Your task to perform on an android device: Clear the cart on newegg.com. Search for usb-c to usb-a on newegg.com, select the first entry, and add it to the cart. Image 0: 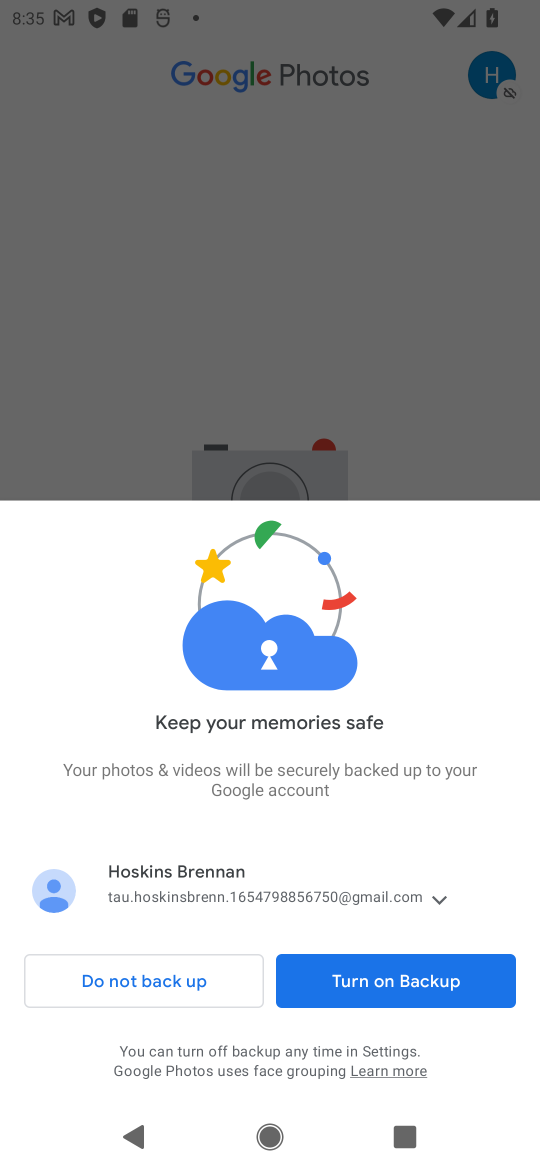
Step 0: press home button
Your task to perform on an android device: Clear the cart on newegg.com. Search for usb-c to usb-a on newegg.com, select the first entry, and add it to the cart. Image 1: 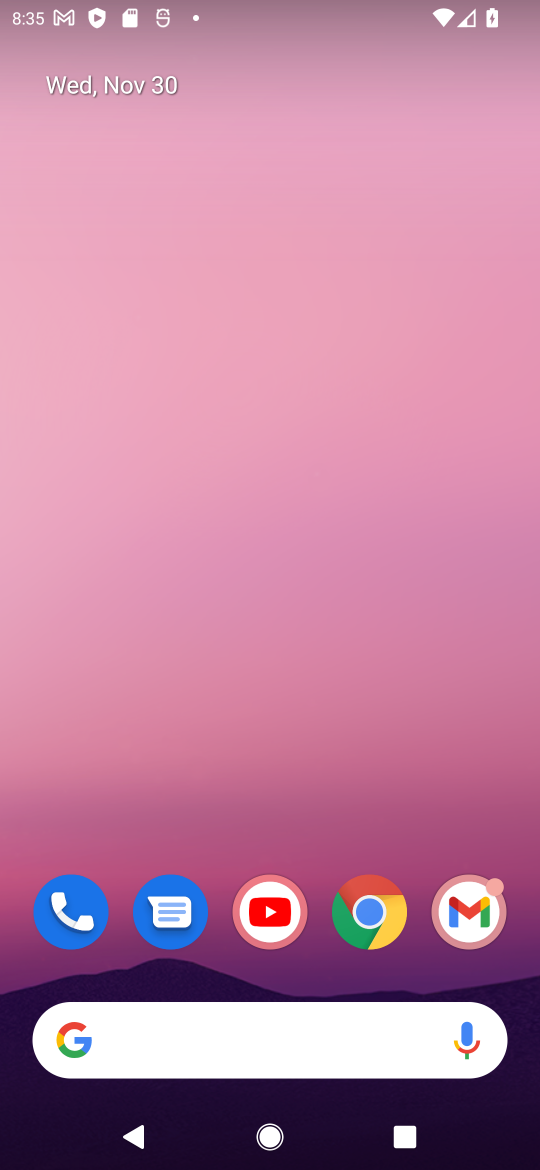
Step 1: click (269, 1038)
Your task to perform on an android device: Clear the cart on newegg.com. Search for usb-c to usb-a on newegg.com, select the first entry, and add it to the cart. Image 2: 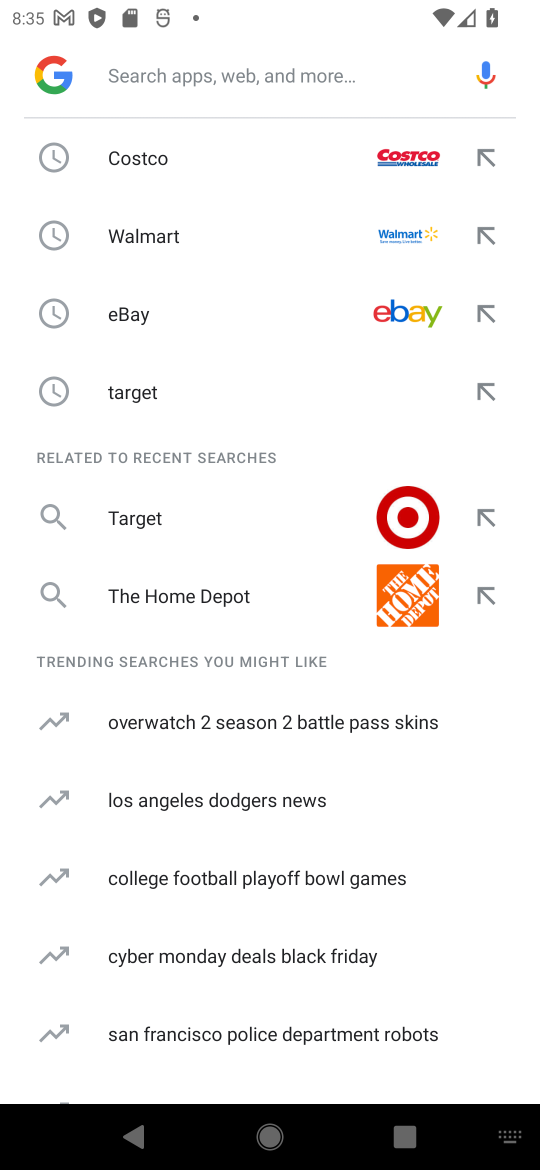
Step 2: type "newegg.com"
Your task to perform on an android device: Clear the cart on newegg.com. Search for usb-c to usb-a on newegg.com, select the first entry, and add it to the cart. Image 3: 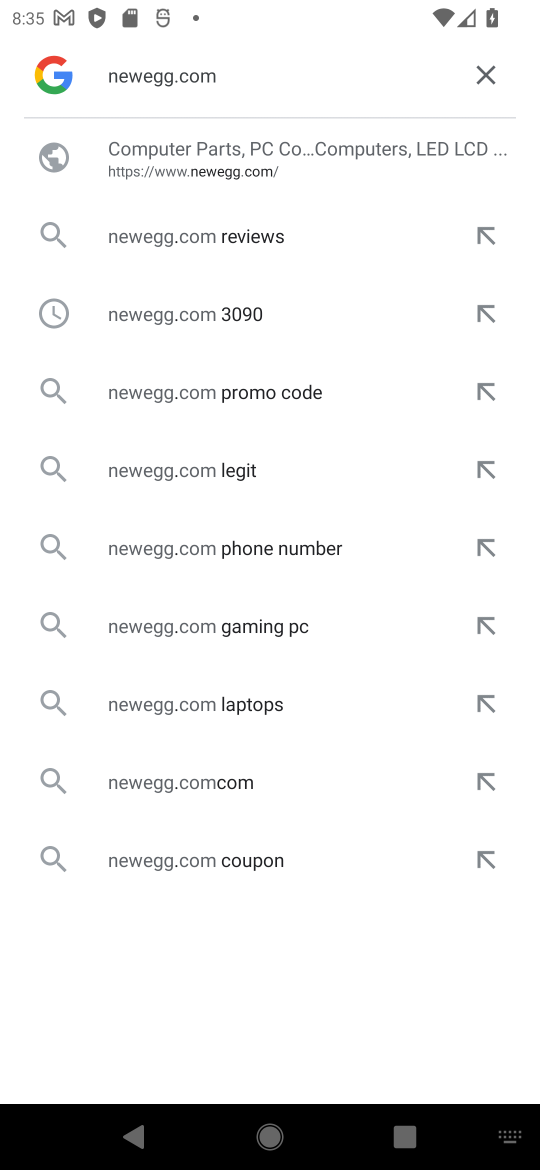
Step 3: click (214, 160)
Your task to perform on an android device: Clear the cart on newegg.com. Search for usb-c to usb-a on newegg.com, select the first entry, and add it to the cart. Image 4: 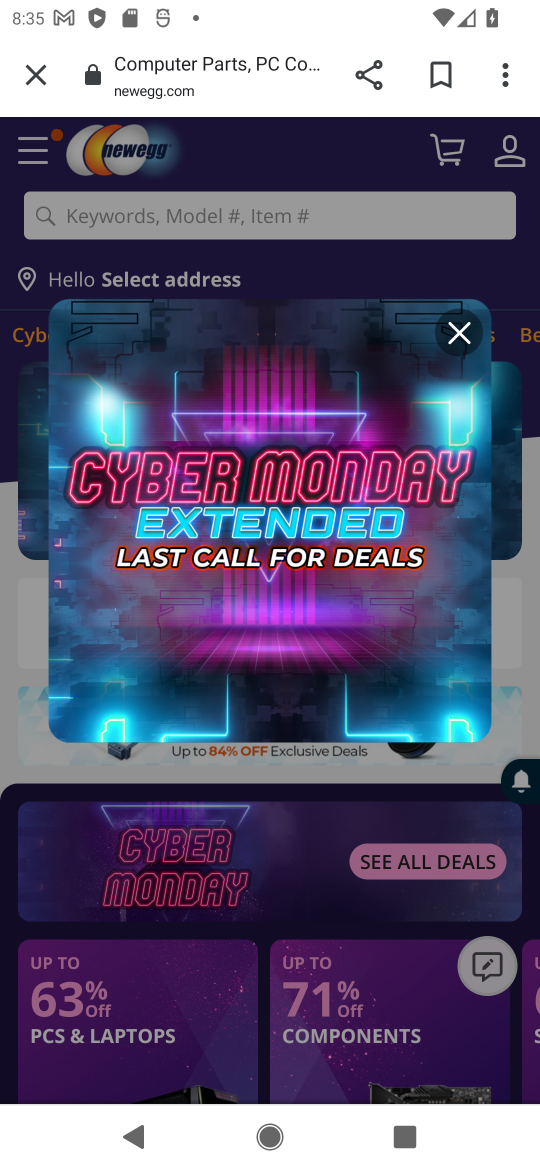
Step 4: click (234, 216)
Your task to perform on an android device: Clear the cart on newegg.com. Search for usb-c to usb-a on newegg.com, select the first entry, and add it to the cart. Image 5: 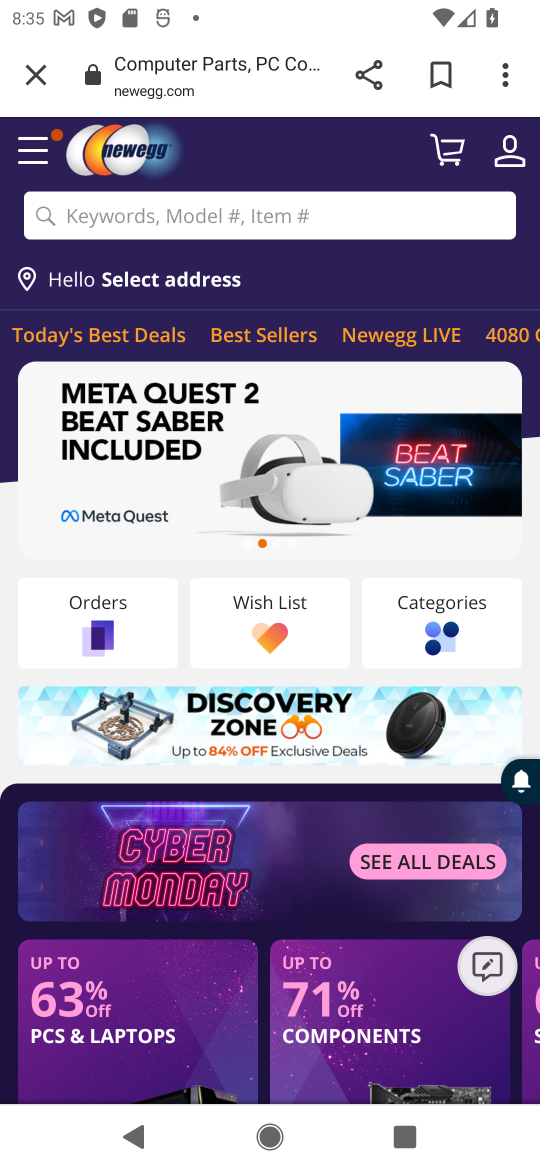
Step 5: click (221, 204)
Your task to perform on an android device: Clear the cart on newegg.com. Search for usb-c to usb-a on newegg.com, select the first entry, and add it to the cart. Image 6: 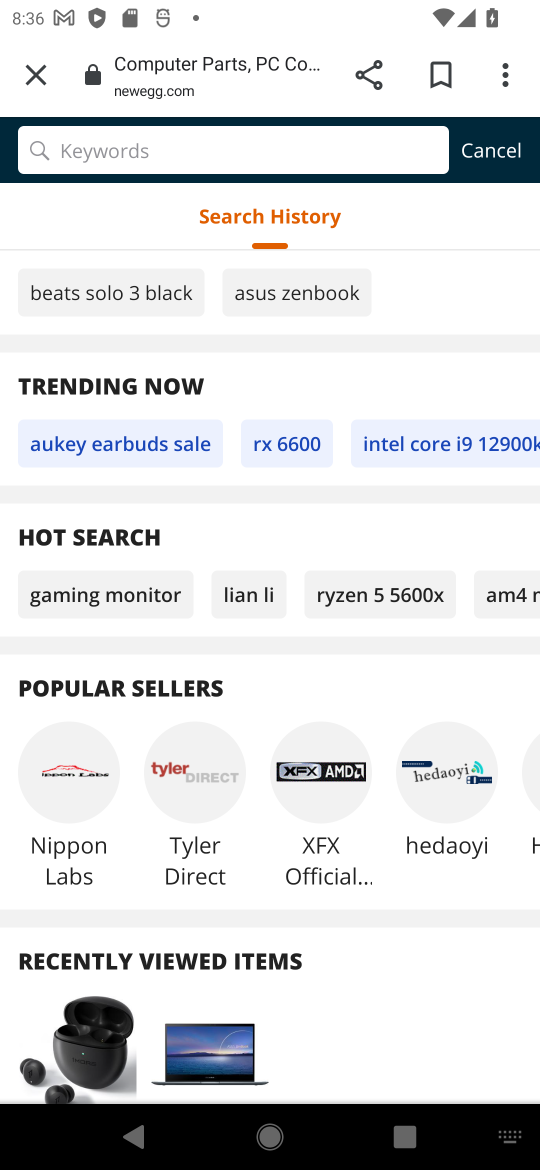
Step 6: type "usb-c to usb-a "
Your task to perform on an android device: Clear the cart on newegg.com. Search for usb-c to usb-a on newegg.com, select the first entry, and add it to the cart. Image 7: 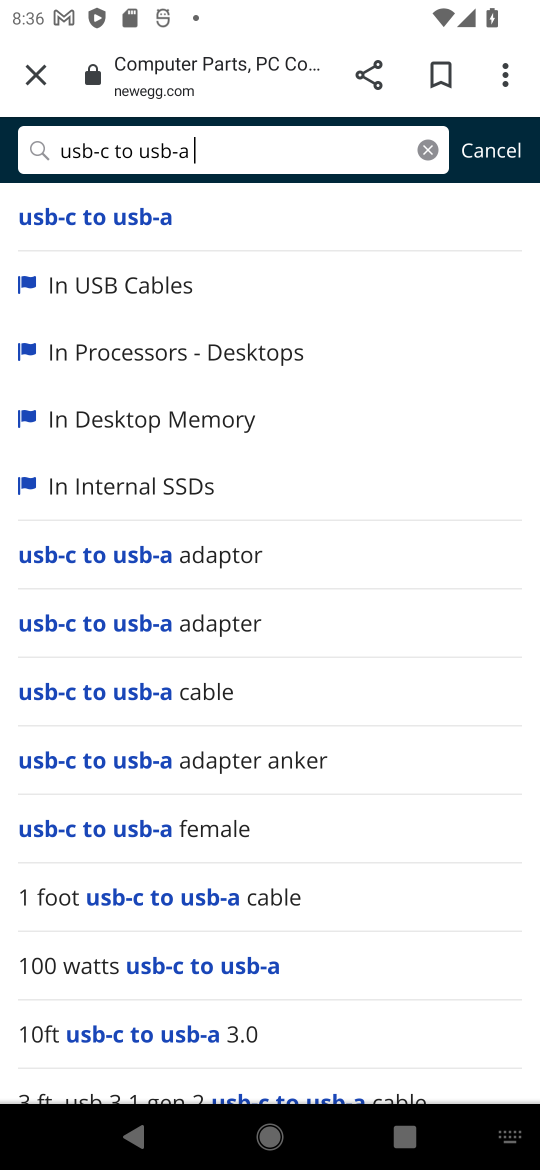
Step 7: click (127, 562)
Your task to perform on an android device: Clear the cart on newegg.com. Search for usb-c to usb-a on newegg.com, select the first entry, and add it to the cart. Image 8: 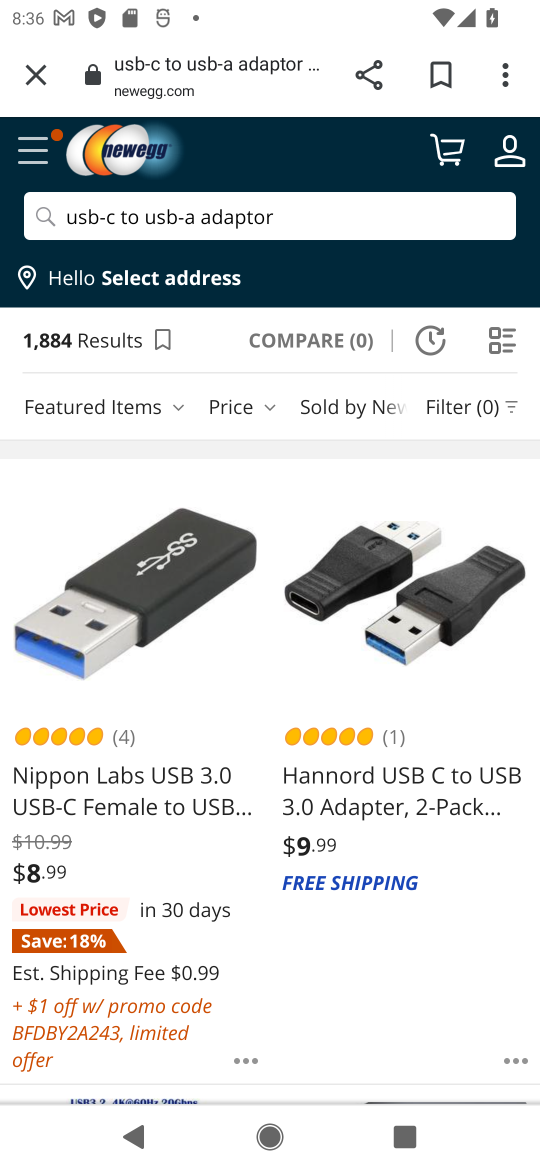
Step 8: click (77, 731)
Your task to perform on an android device: Clear the cart on newegg.com. Search for usb-c to usb-a on newegg.com, select the first entry, and add it to the cart. Image 9: 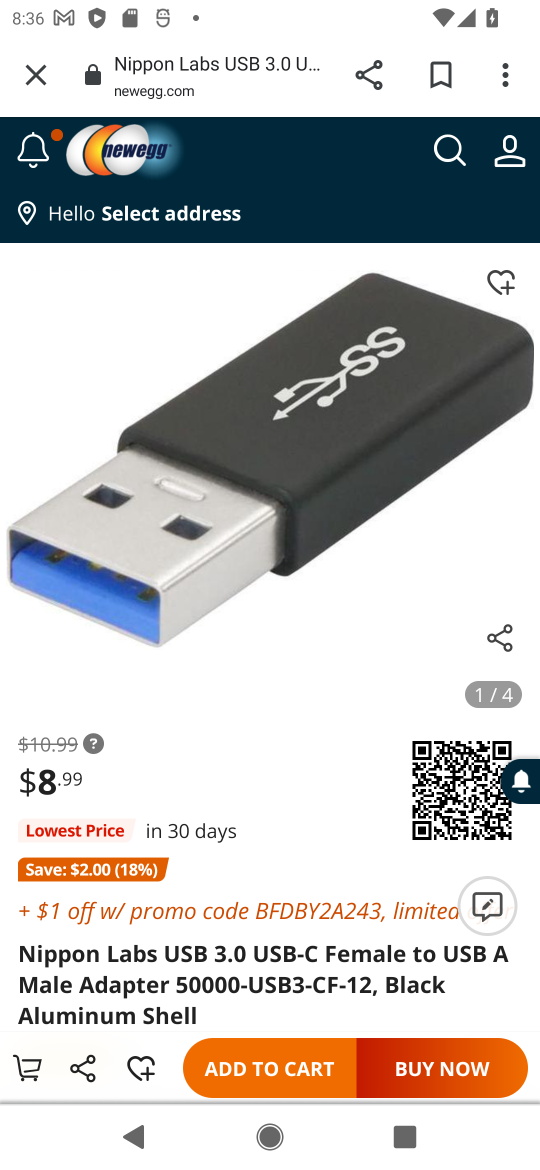
Step 9: click (249, 1069)
Your task to perform on an android device: Clear the cart on newegg.com. Search for usb-c to usb-a on newegg.com, select the first entry, and add it to the cart. Image 10: 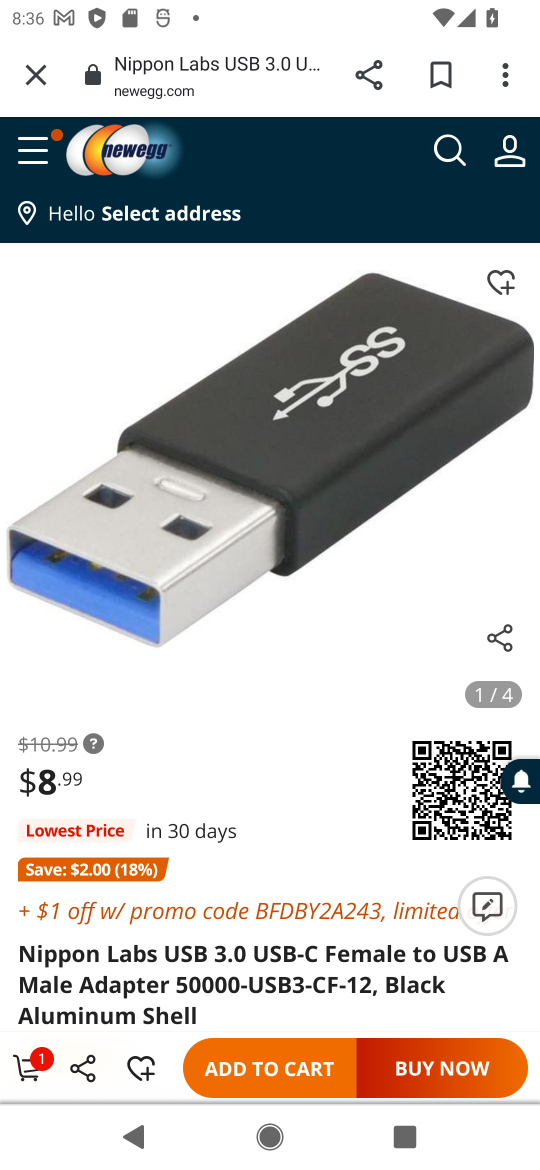
Step 10: task complete